Your task to perform on an android device: turn off translation in the chrome app Image 0: 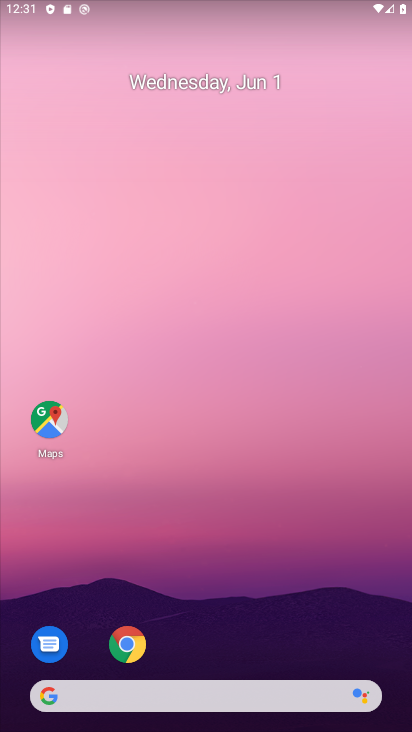
Step 0: click (118, 650)
Your task to perform on an android device: turn off translation in the chrome app Image 1: 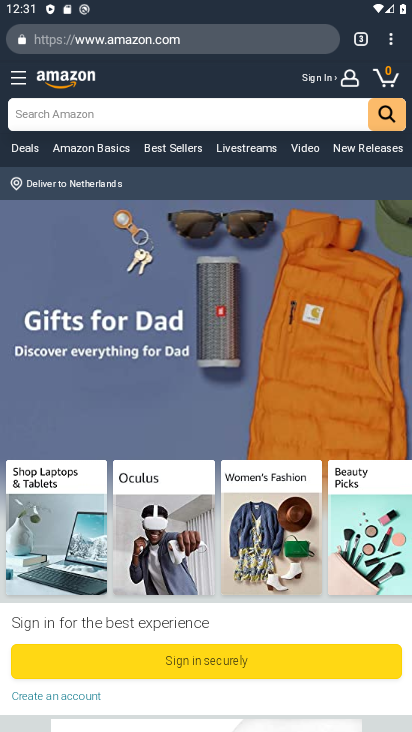
Step 1: drag from (384, 32) to (266, 472)
Your task to perform on an android device: turn off translation in the chrome app Image 2: 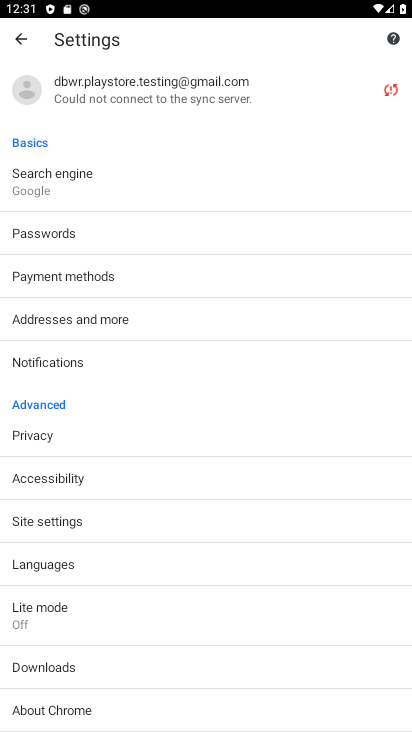
Step 2: click (58, 572)
Your task to perform on an android device: turn off translation in the chrome app Image 3: 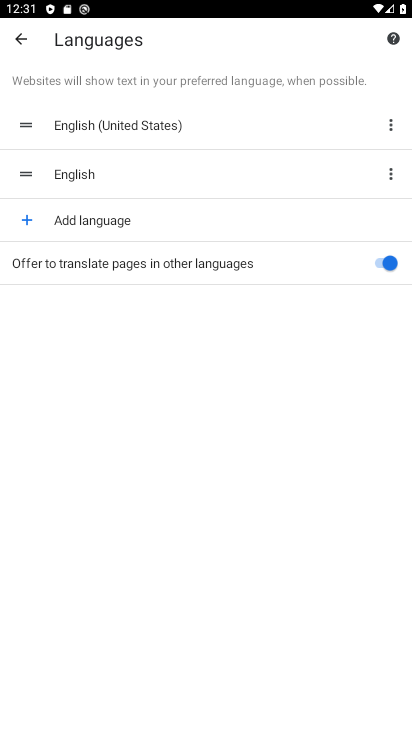
Step 3: click (323, 279)
Your task to perform on an android device: turn off translation in the chrome app Image 4: 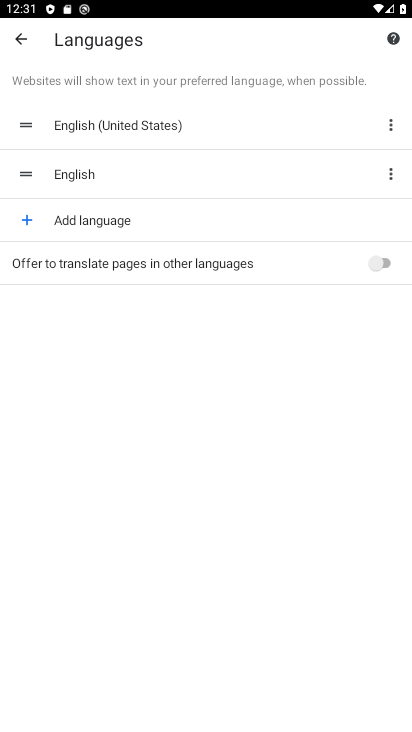
Step 4: task complete